Your task to perform on an android device: What's the weather going to be this weekend? Image 0: 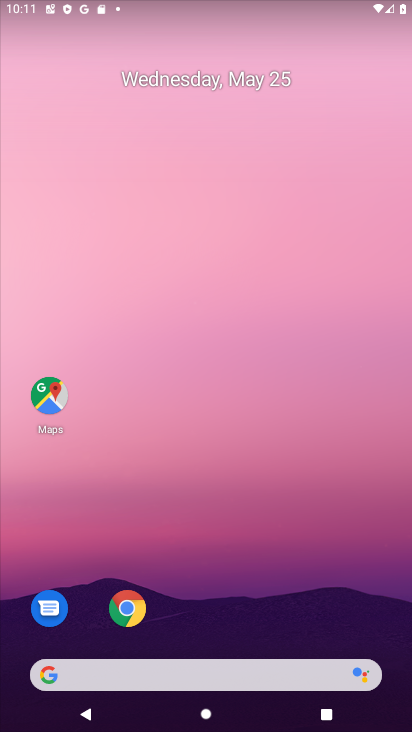
Step 0: click (89, 672)
Your task to perform on an android device: What's the weather going to be this weekend? Image 1: 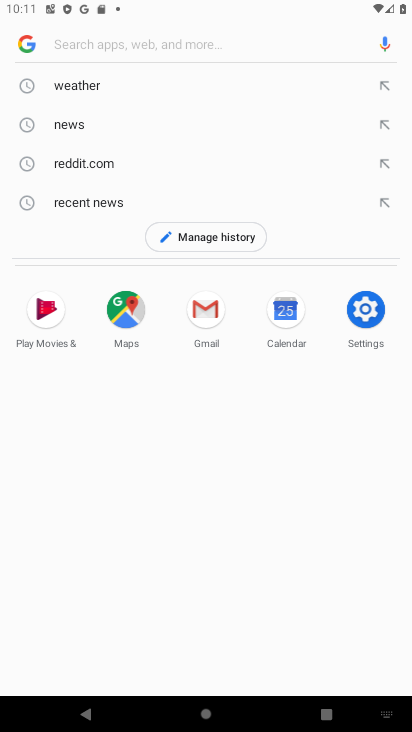
Step 1: click (89, 87)
Your task to perform on an android device: What's the weather going to be this weekend? Image 2: 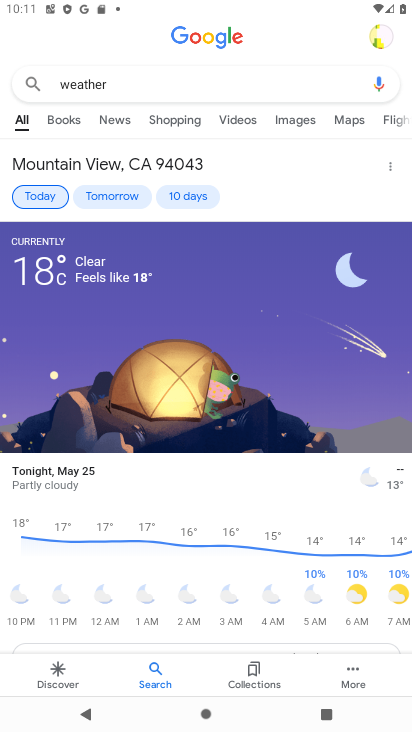
Step 2: click (195, 203)
Your task to perform on an android device: What's the weather going to be this weekend? Image 3: 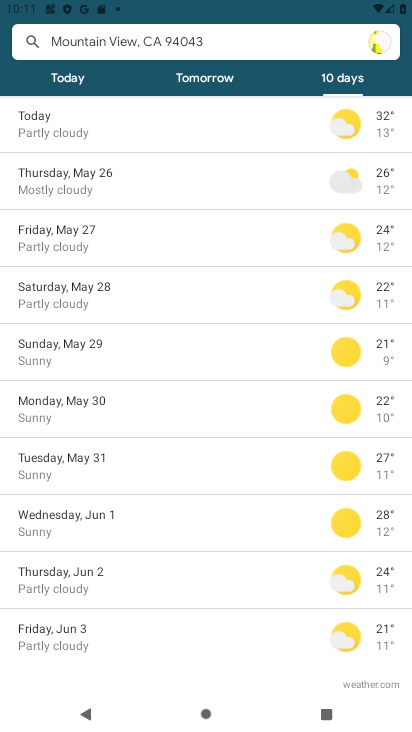
Step 3: task complete